Your task to perform on an android device: check google app version Image 0: 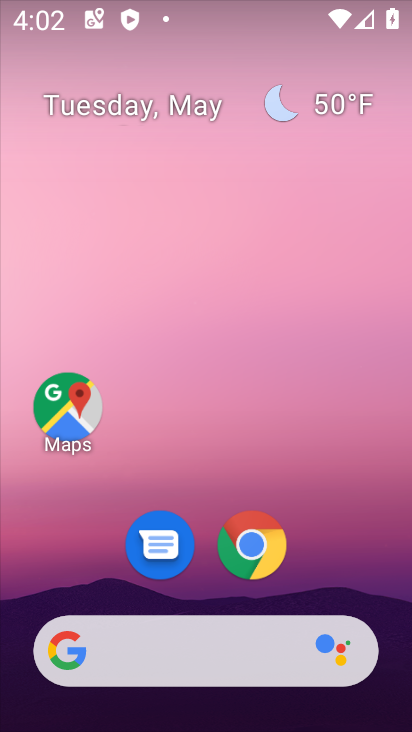
Step 0: click (209, 642)
Your task to perform on an android device: check google app version Image 1: 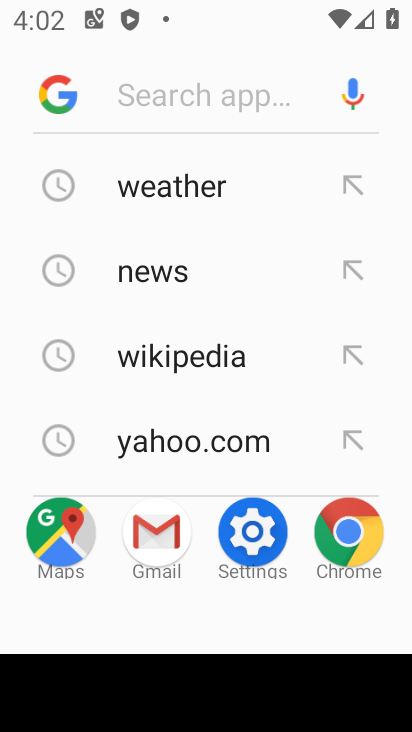
Step 1: click (48, 95)
Your task to perform on an android device: check google app version Image 2: 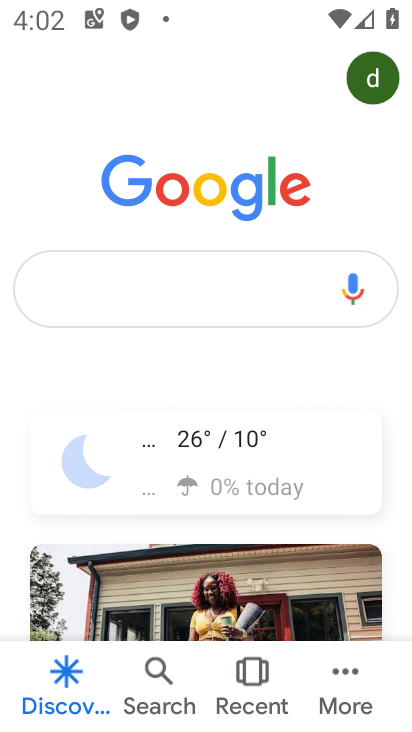
Step 2: click (342, 669)
Your task to perform on an android device: check google app version Image 3: 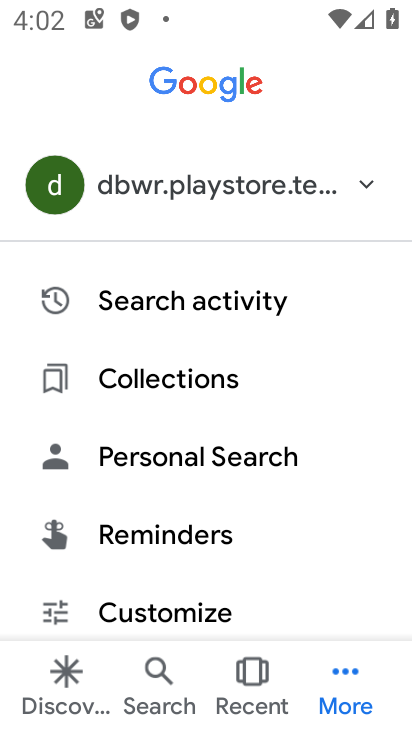
Step 3: drag from (169, 573) to (187, 264)
Your task to perform on an android device: check google app version Image 4: 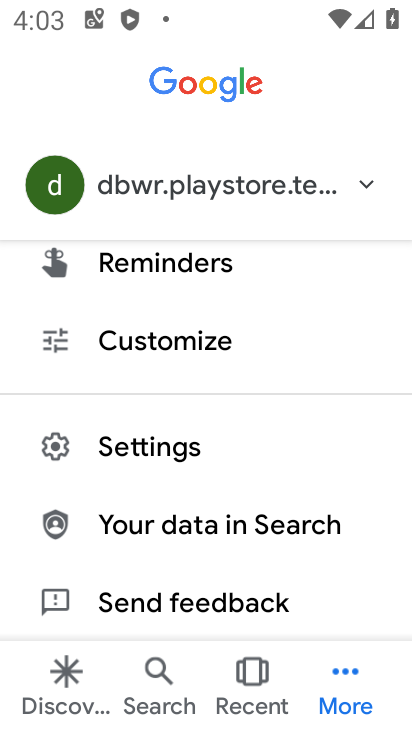
Step 4: click (171, 453)
Your task to perform on an android device: check google app version Image 5: 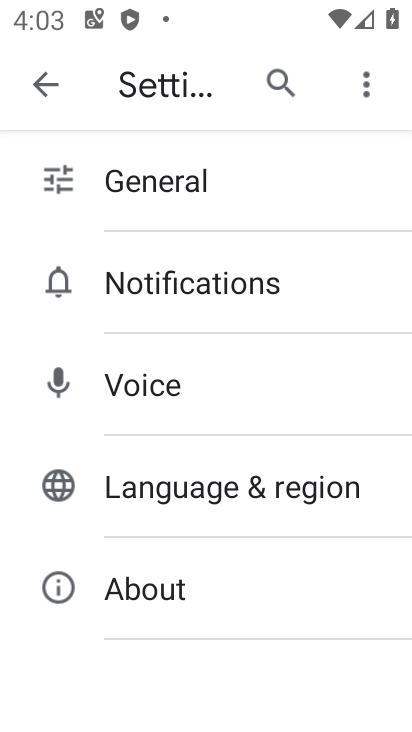
Step 5: click (174, 597)
Your task to perform on an android device: check google app version Image 6: 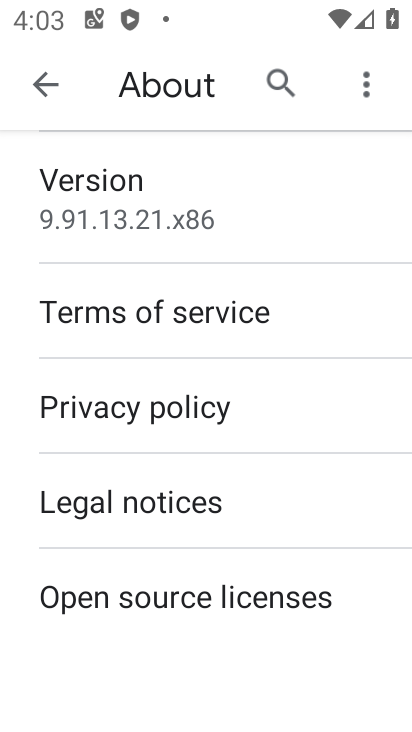
Step 6: task complete